Your task to perform on an android device: Go to accessibility settings Image 0: 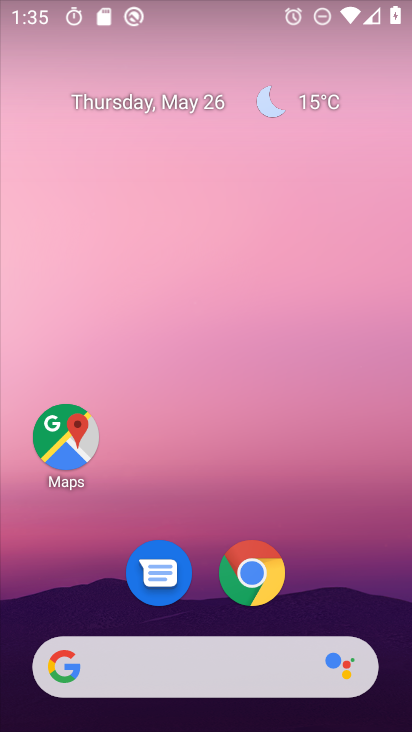
Step 0: drag from (386, 599) to (274, 7)
Your task to perform on an android device: Go to accessibility settings Image 1: 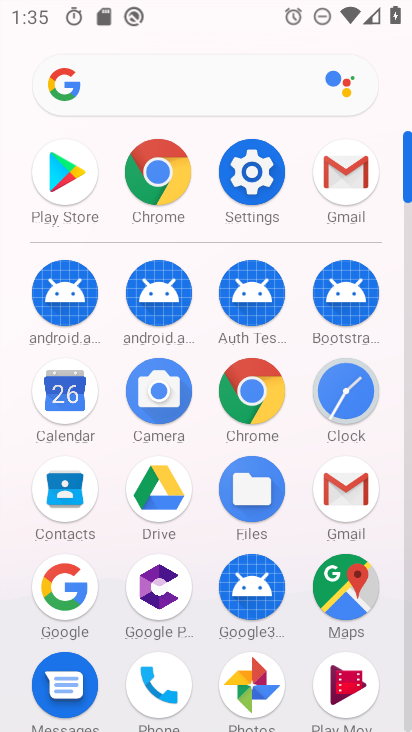
Step 1: click (248, 177)
Your task to perform on an android device: Go to accessibility settings Image 2: 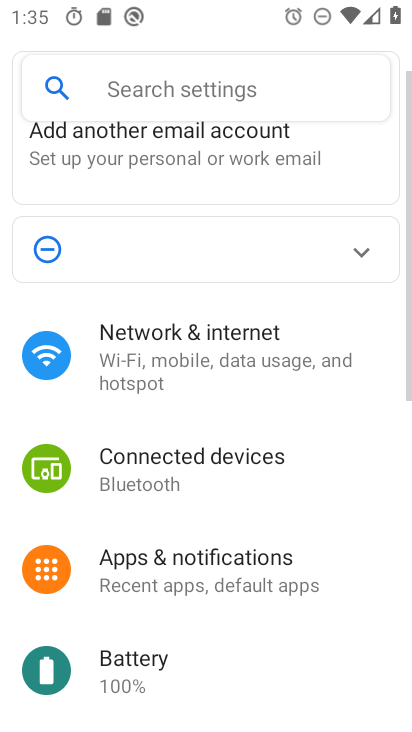
Step 2: drag from (269, 617) to (299, 2)
Your task to perform on an android device: Go to accessibility settings Image 3: 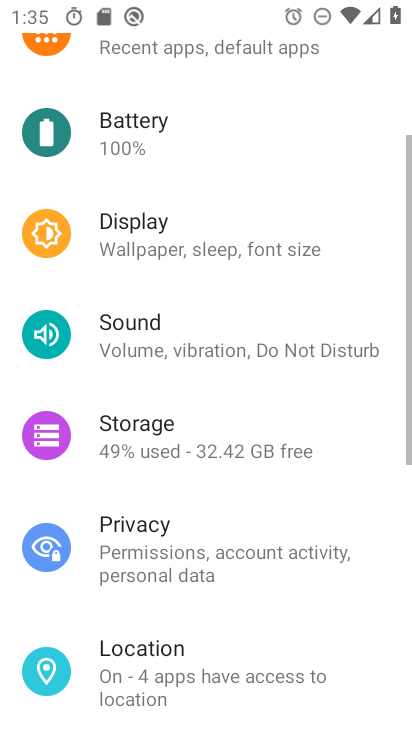
Step 3: drag from (224, 484) to (274, 38)
Your task to perform on an android device: Go to accessibility settings Image 4: 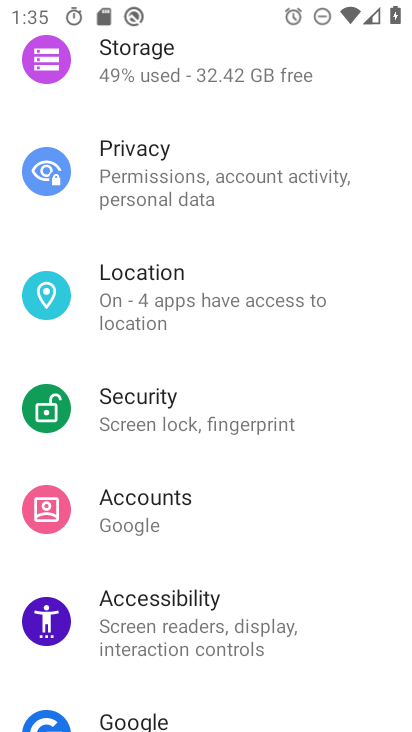
Step 4: click (152, 625)
Your task to perform on an android device: Go to accessibility settings Image 5: 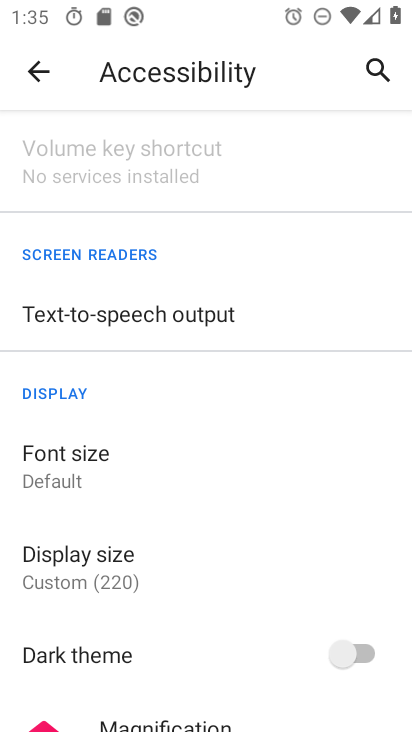
Step 5: task complete